Your task to perform on an android device: change your default location settings in chrome Image 0: 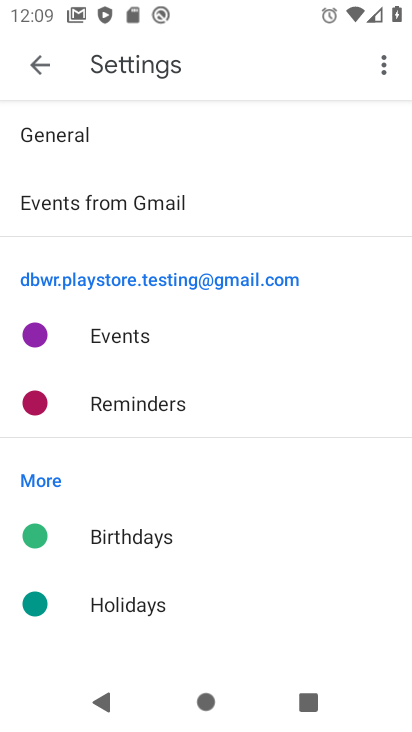
Step 0: press home button
Your task to perform on an android device: change your default location settings in chrome Image 1: 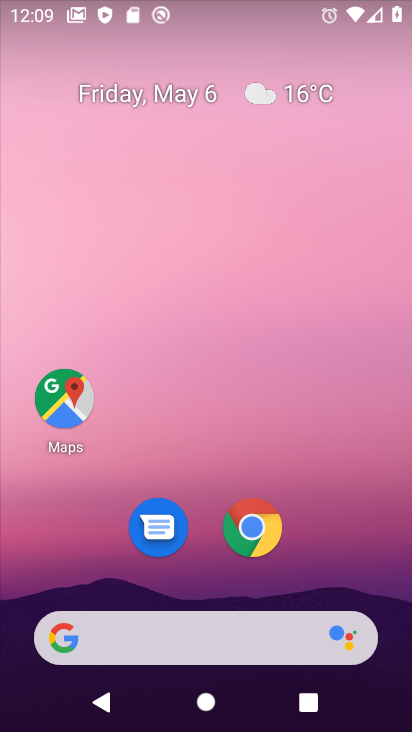
Step 1: click (228, 519)
Your task to perform on an android device: change your default location settings in chrome Image 2: 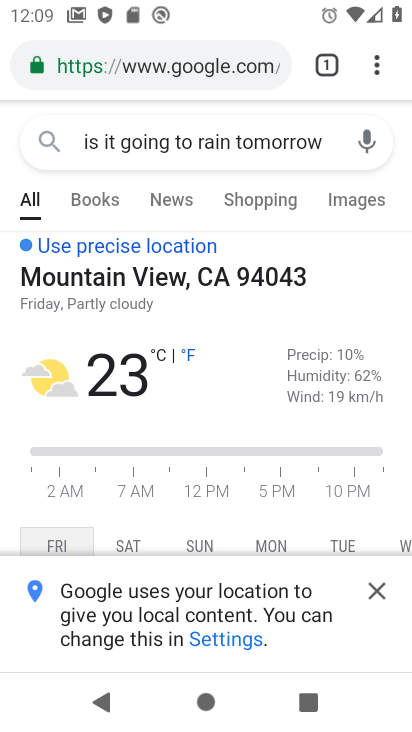
Step 2: drag from (378, 65) to (142, 578)
Your task to perform on an android device: change your default location settings in chrome Image 3: 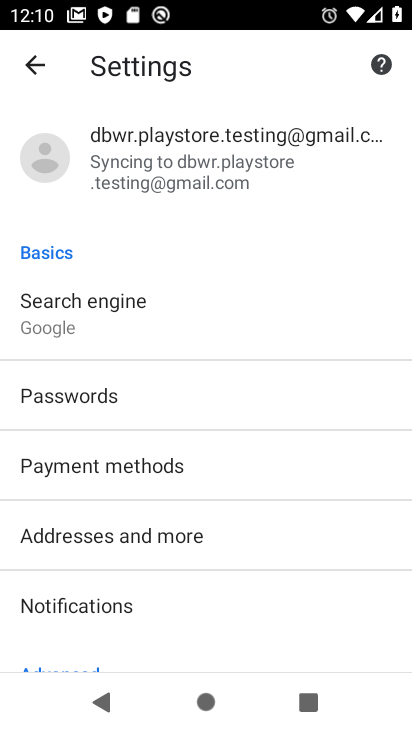
Step 3: drag from (176, 633) to (176, 458)
Your task to perform on an android device: change your default location settings in chrome Image 4: 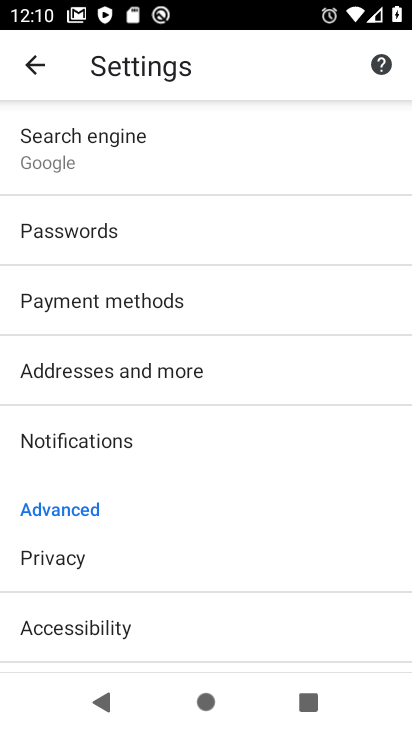
Step 4: drag from (141, 580) to (140, 246)
Your task to perform on an android device: change your default location settings in chrome Image 5: 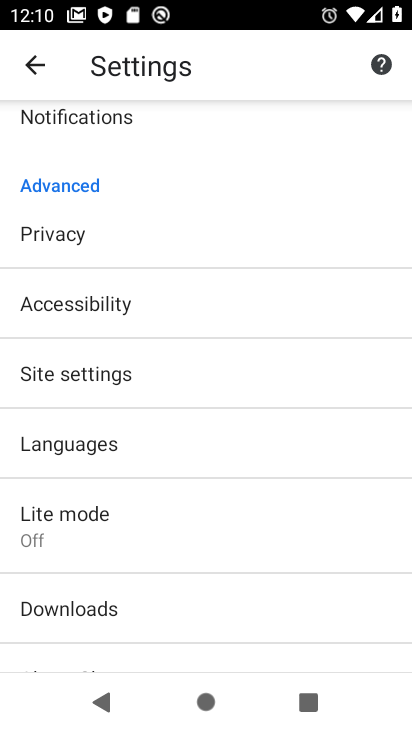
Step 5: click (102, 375)
Your task to perform on an android device: change your default location settings in chrome Image 6: 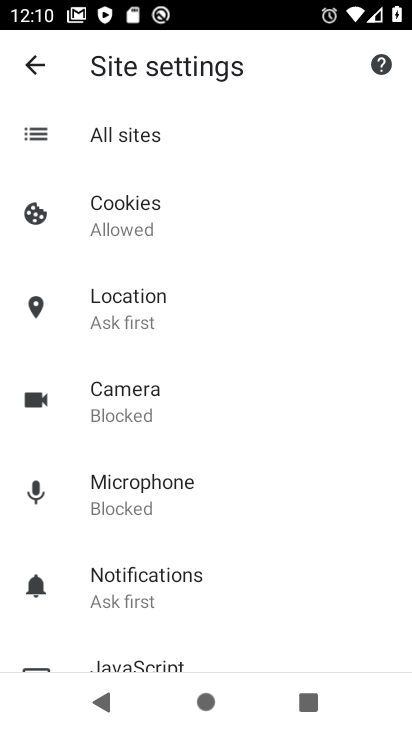
Step 6: click (125, 325)
Your task to perform on an android device: change your default location settings in chrome Image 7: 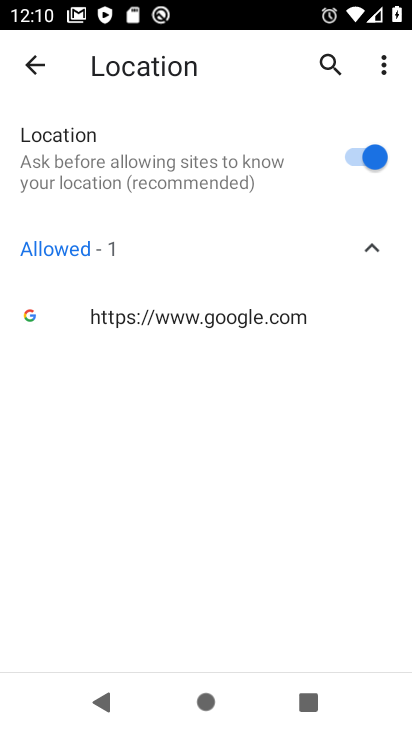
Step 7: click (366, 162)
Your task to perform on an android device: change your default location settings in chrome Image 8: 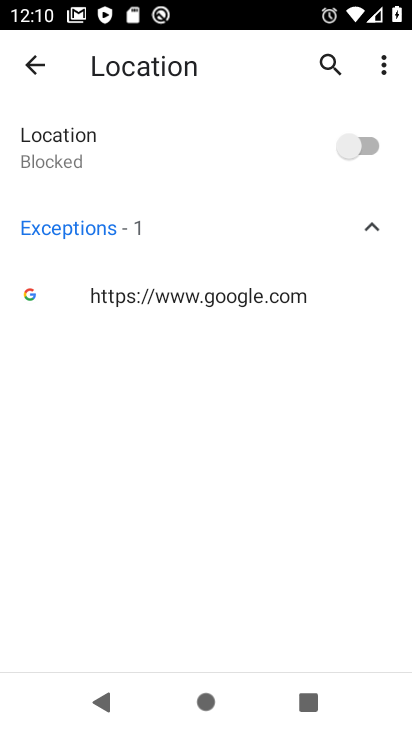
Step 8: task complete